Your task to perform on an android device: What's the weather going to be this weekend? Image 0: 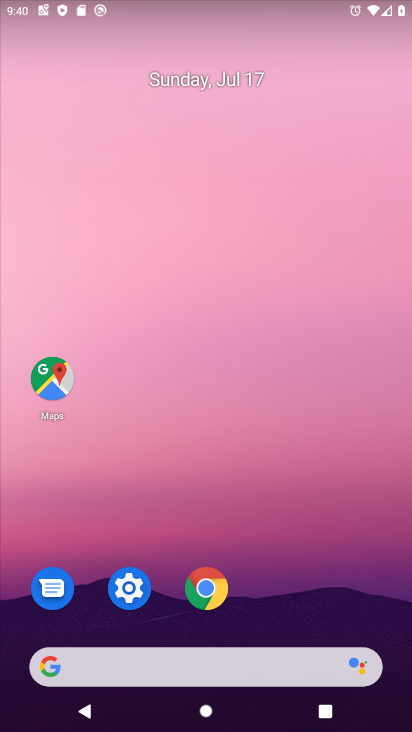
Step 0: drag from (292, 668) to (296, 173)
Your task to perform on an android device: What's the weather going to be this weekend? Image 1: 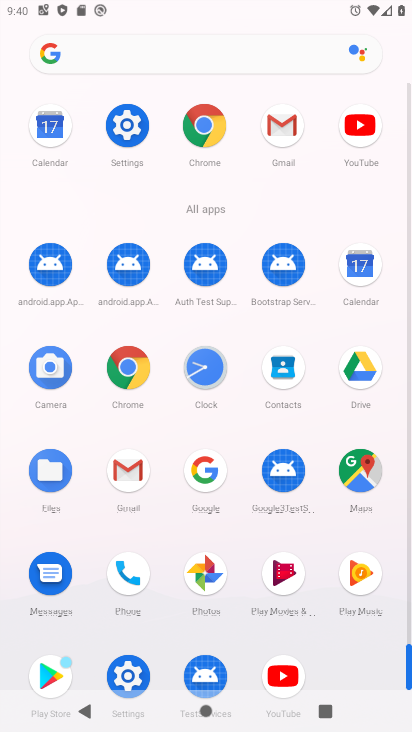
Step 1: click (364, 125)
Your task to perform on an android device: What's the weather going to be this weekend? Image 2: 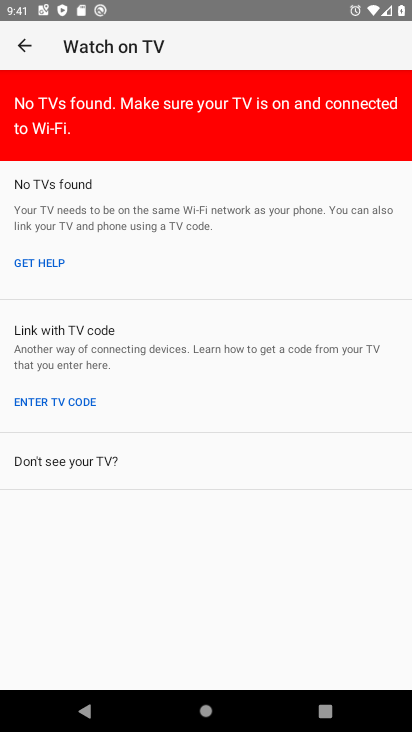
Step 2: click (21, 55)
Your task to perform on an android device: What's the weather going to be this weekend? Image 3: 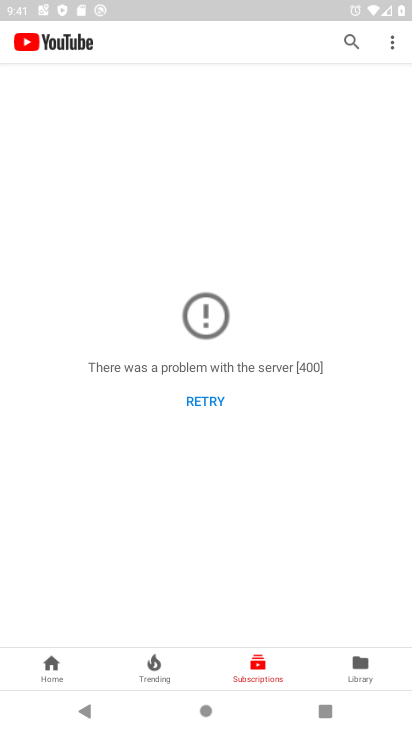
Step 3: press home button
Your task to perform on an android device: What's the weather going to be this weekend? Image 4: 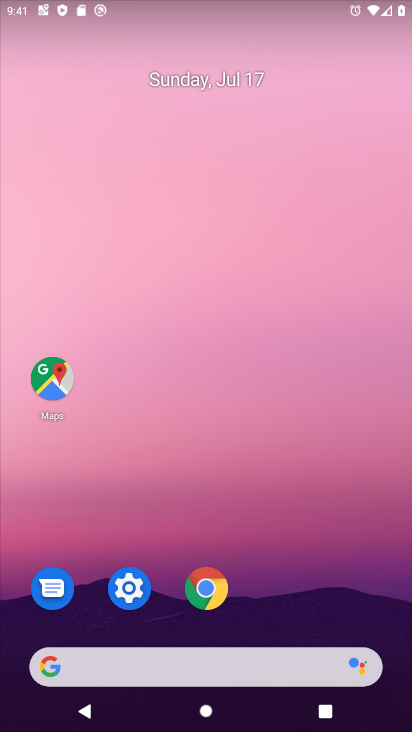
Step 4: drag from (275, 605) to (246, 158)
Your task to perform on an android device: What's the weather going to be this weekend? Image 5: 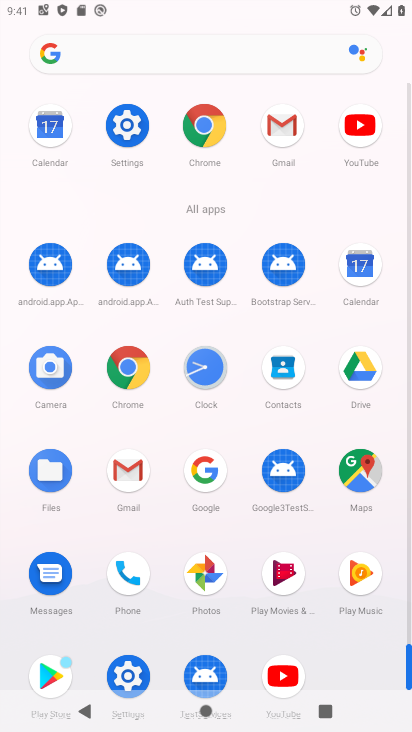
Step 5: click (358, 271)
Your task to perform on an android device: What's the weather going to be this weekend? Image 6: 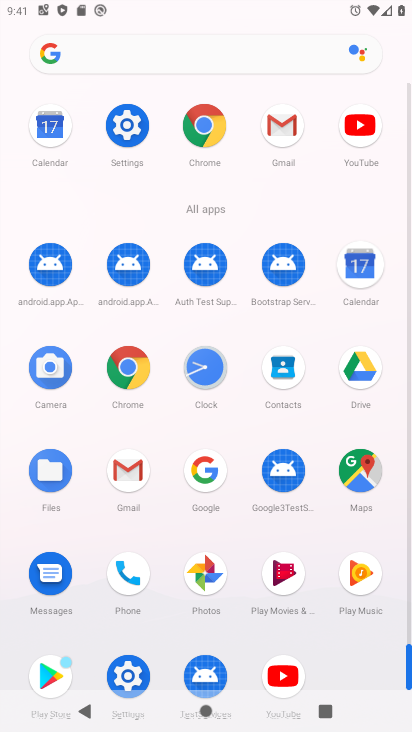
Step 6: click (360, 269)
Your task to perform on an android device: What's the weather going to be this weekend? Image 7: 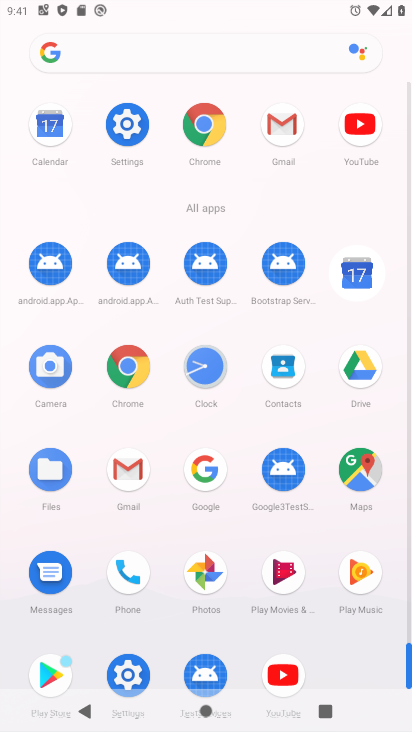
Step 7: click (361, 271)
Your task to perform on an android device: What's the weather going to be this weekend? Image 8: 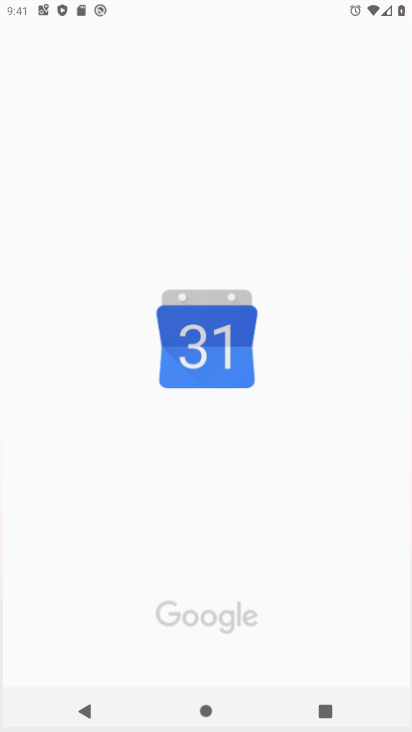
Step 8: click (361, 275)
Your task to perform on an android device: What's the weather going to be this weekend? Image 9: 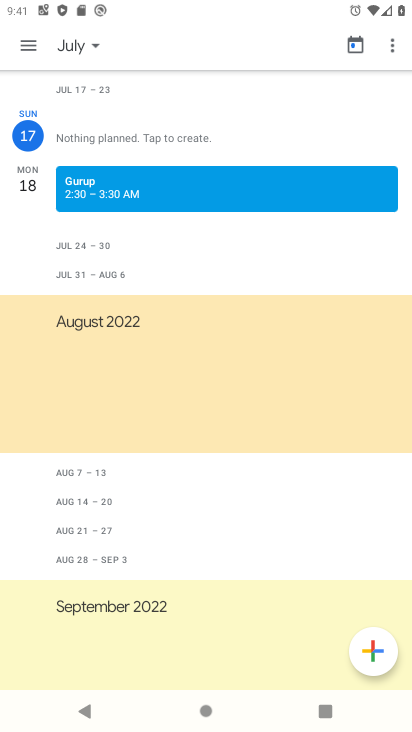
Step 9: click (89, 42)
Your task to perform on an android device: What's the weather going to be this weekend? Image 10: 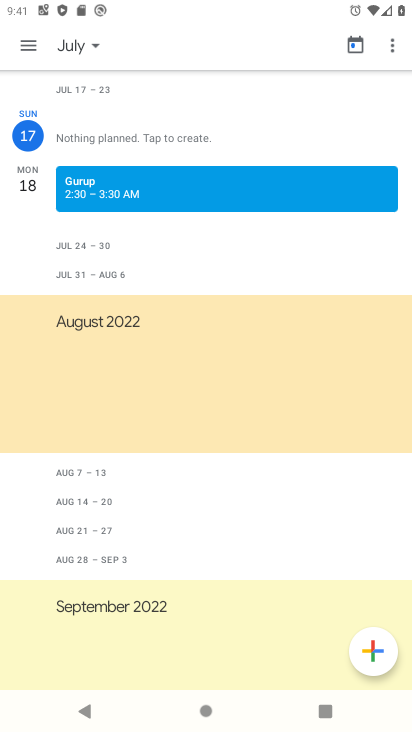
Step 10: click (90, 42)
Your task to perform on an android device: What's the weather going to be this weekend? Image 11: 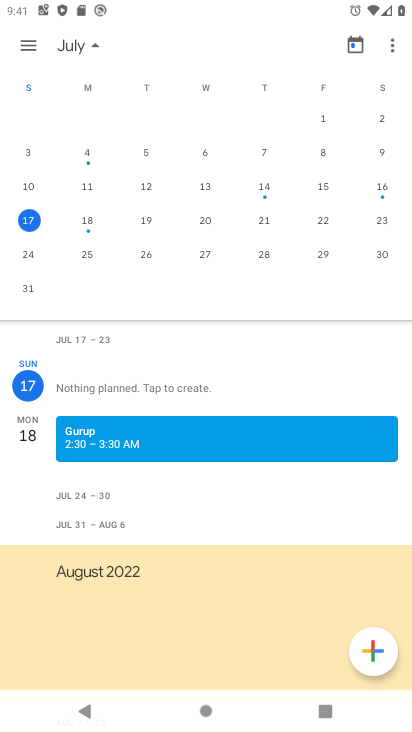
Step 11: click (265, 221)
Your task to perform on an android device: What's the weather going to be this weekend? Image 12: 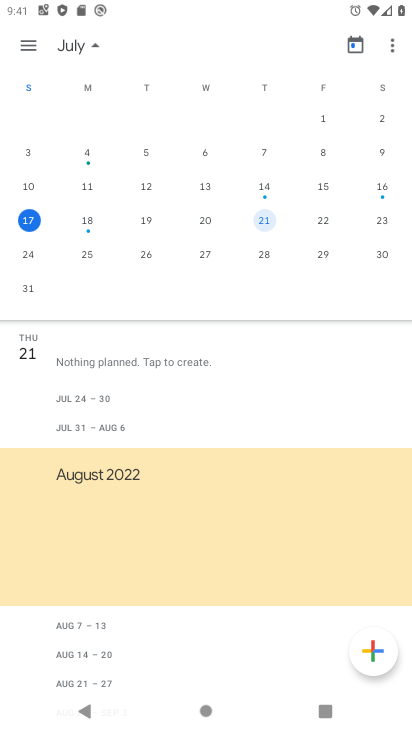
Step 12: click (380, 216)
Your task to perform on an android device: What's the weather going to be this weekend? Image 13: 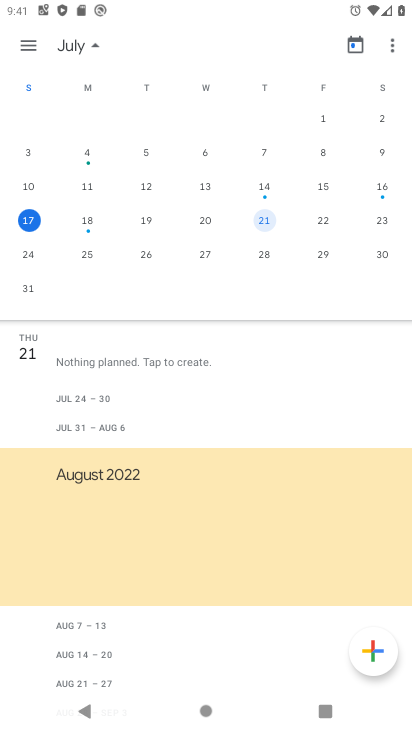
Step 13: click (381, 218)
Your task to perform on an android device: What's the weather going to be this weekend? Image 14: 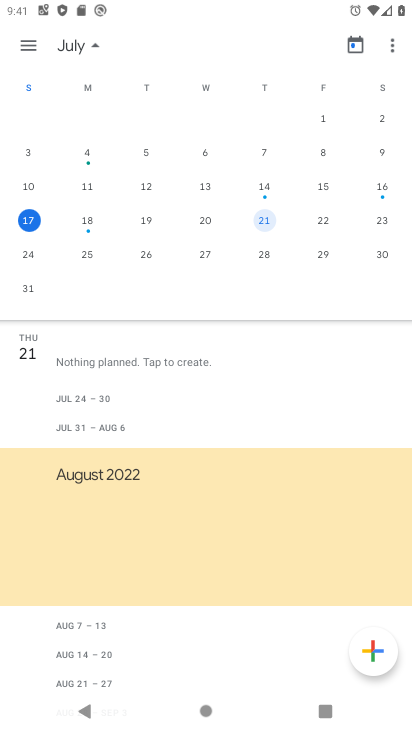
Step 14: click (384, 223)
Your task to perform on an android device: What's the weather going to be this weekend? Image 15: 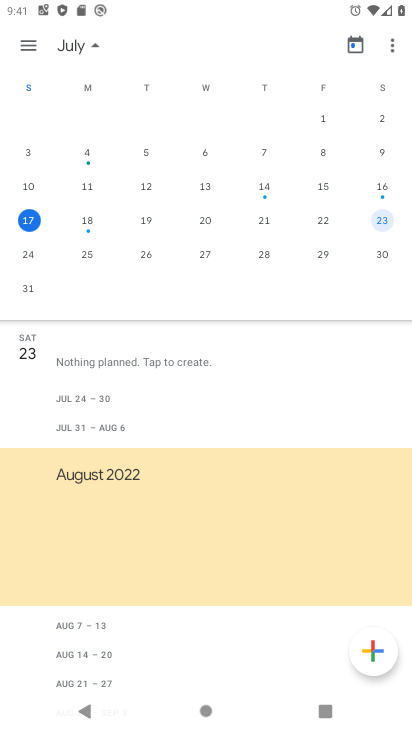
Step 15: click (385, 223)
Your task to perform on an android device: What's the weather going to be this weekend? Image 16: 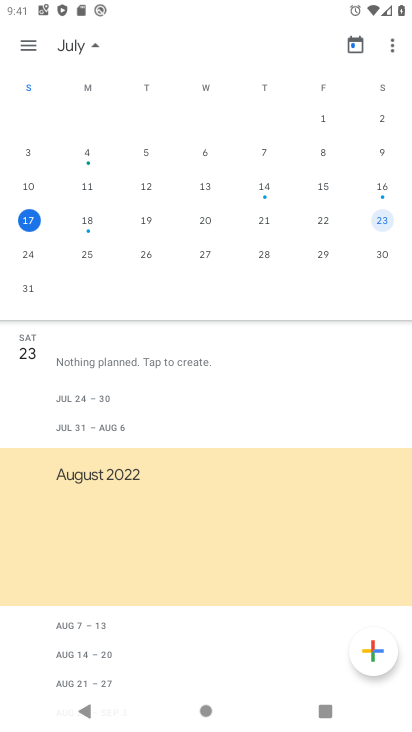
Step 16: task complete